Your task to perform on an android device: Open my contact list Image 0: 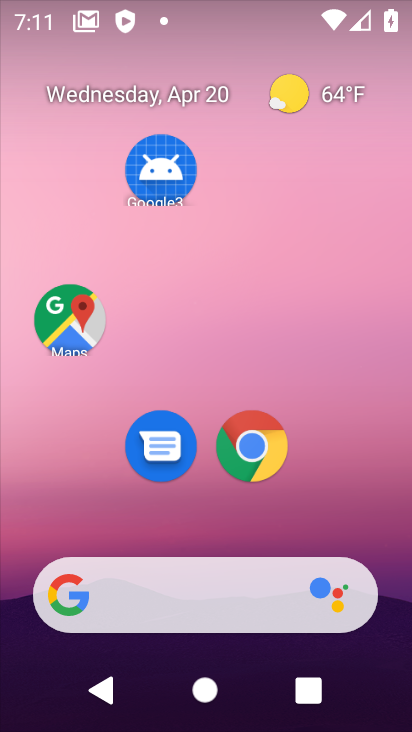
Step 0: drag from (199, 517) to (216, 63)
Your task to perform on an android device: Open my contact list Image 1: 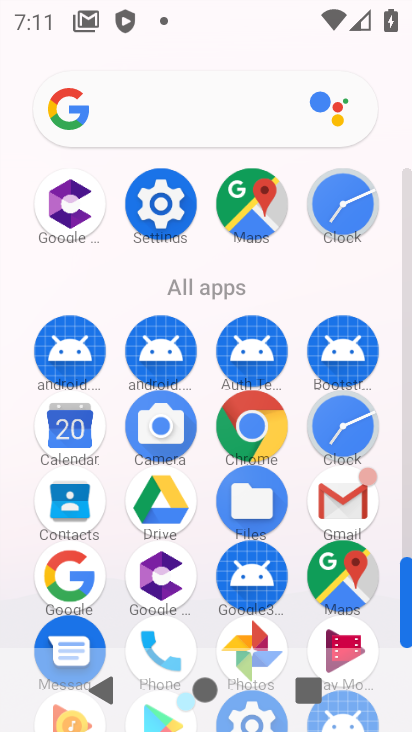
Step 1: click (71, 508)
Your task to perform on an android device: Open my contact list Image 2: 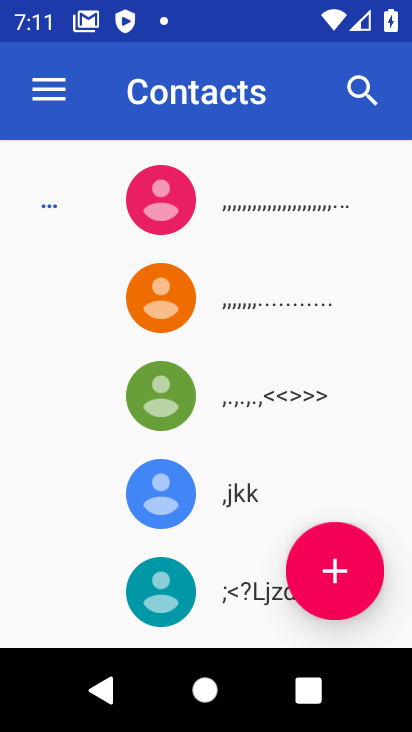
Step 2: task complete